Your task to perform on an android device: install app "Speedtest by Ookla" Image 0: 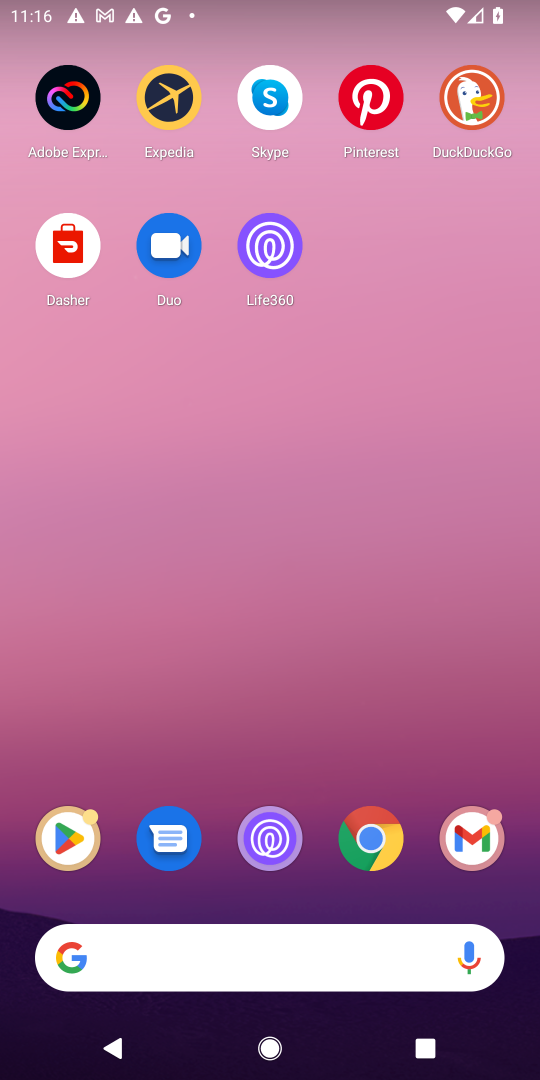
Step 0: press home button
Your task to perform on an android device: install app "Speedtest by Ookla" Image 1: 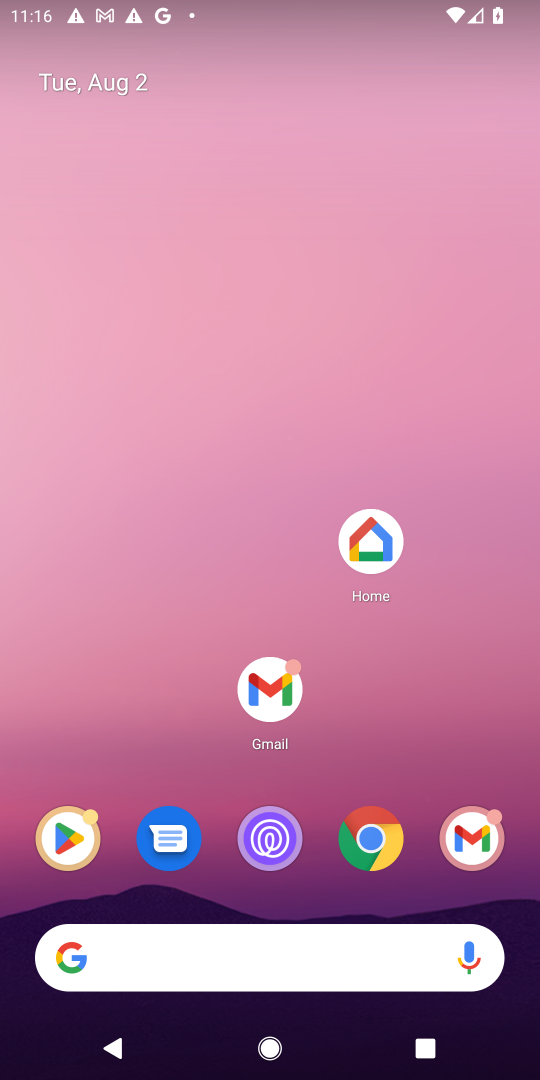
Step 1: drag from (339, 770) to (352, 111)
Your task to perform on an android device: install app "Speedtest by Ookla" Image 2: 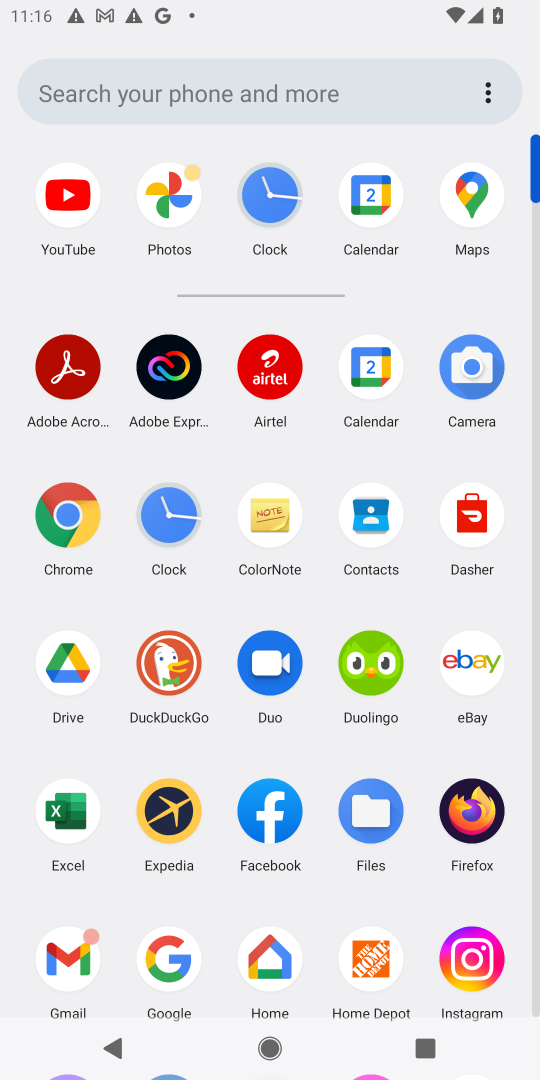
Step 2: drag from (308, 912) to (328, 598)
Your task to perform on an android device: install app "Speedtest by Ookla" Image 3: 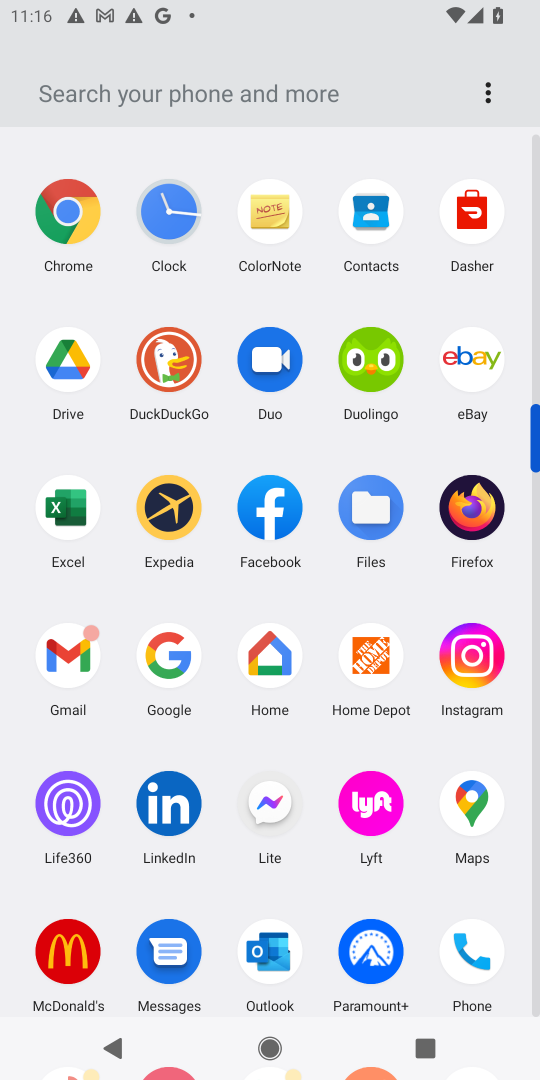
Step 3: drag from (307, 885) to (307, 649)
Your task to perform on an android device: install app "Speedtest by Ookla" Image 4: 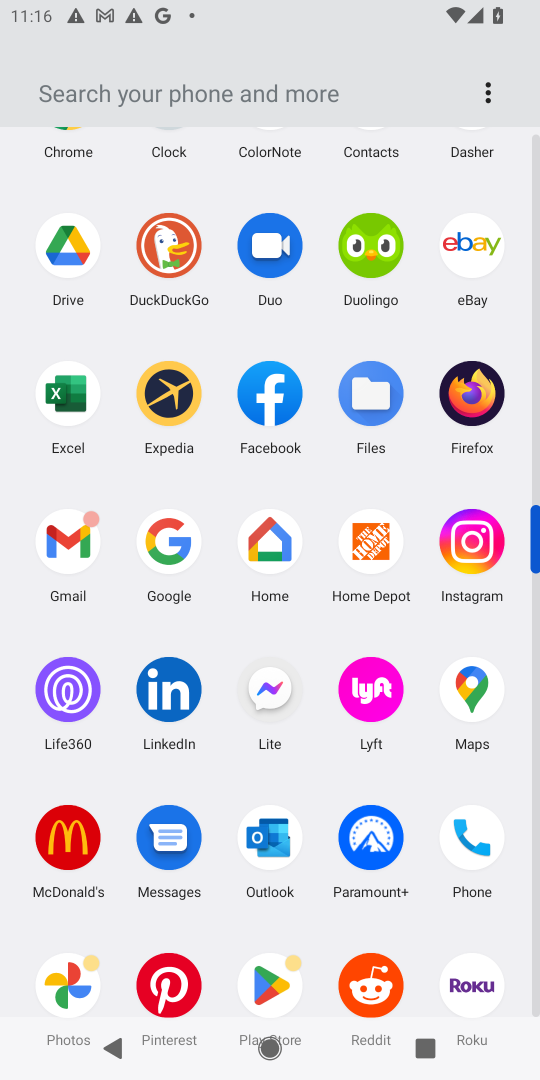
Step 4: drag from (308, 982) to (322, 670)
Your task to perform on an android device: install app "Speedtest by Ookla" Image 5: 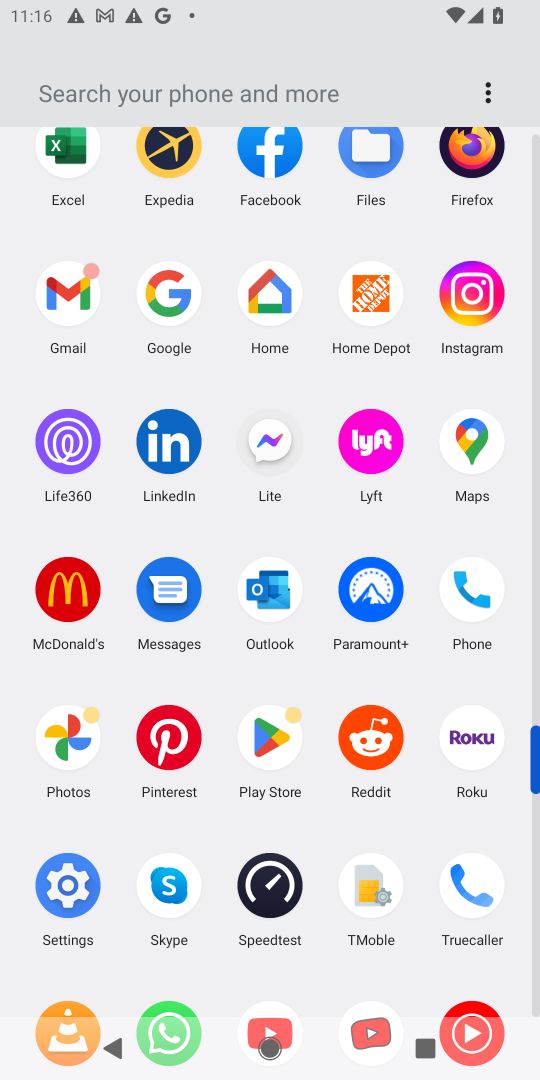
Step 5: click (271, 740)
Your task to perform on an android device: install app "Speedtest by Ookla" Image 6: 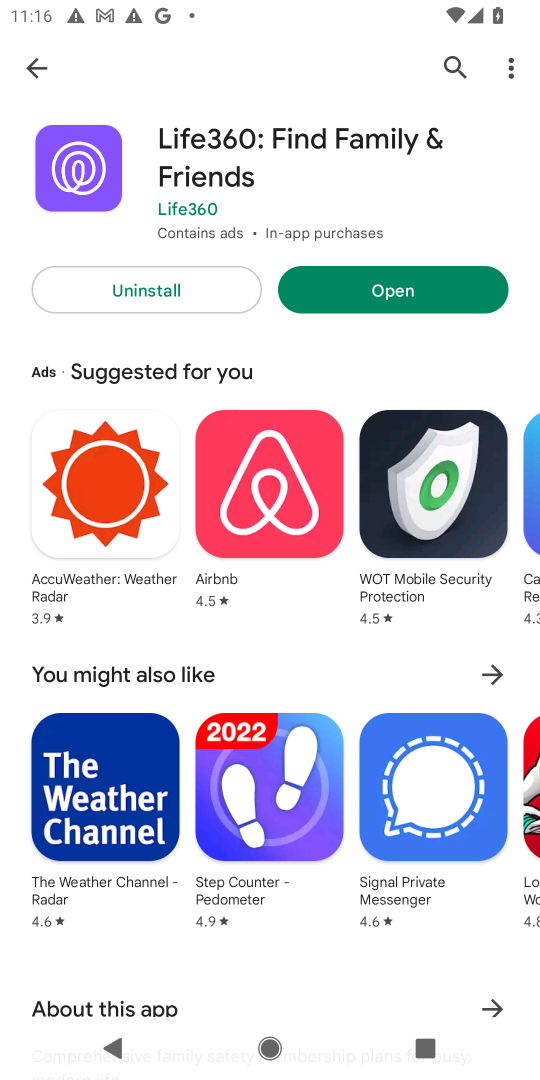
Step 6: click (447, 63)
Your task to perform on an android device: install app "Speedtest by Ookla" Image 7: 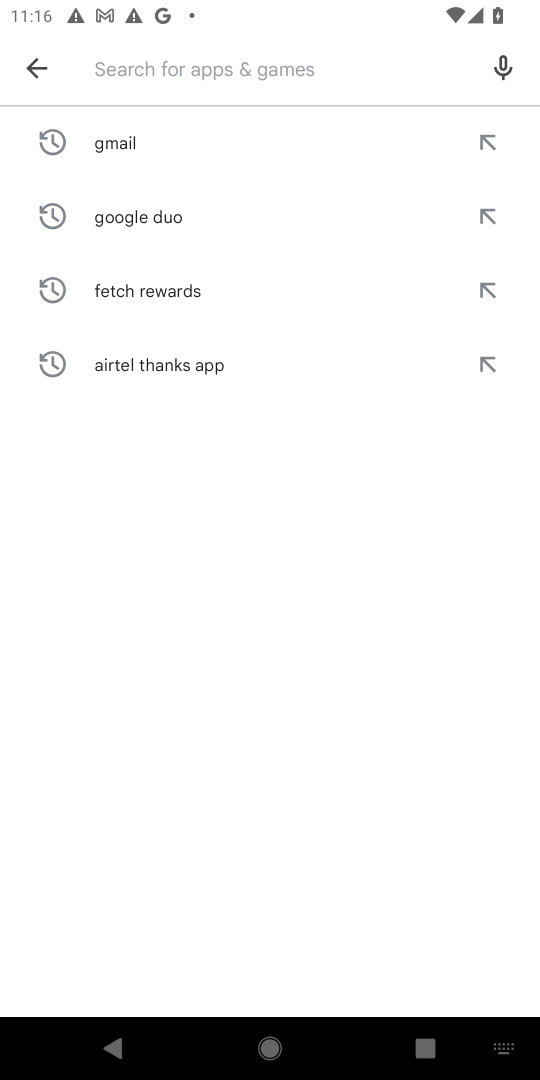
Step 7: click (364, 67)
Your task to perform on an android device: install app "Speedtest by Ookla" Image 8: 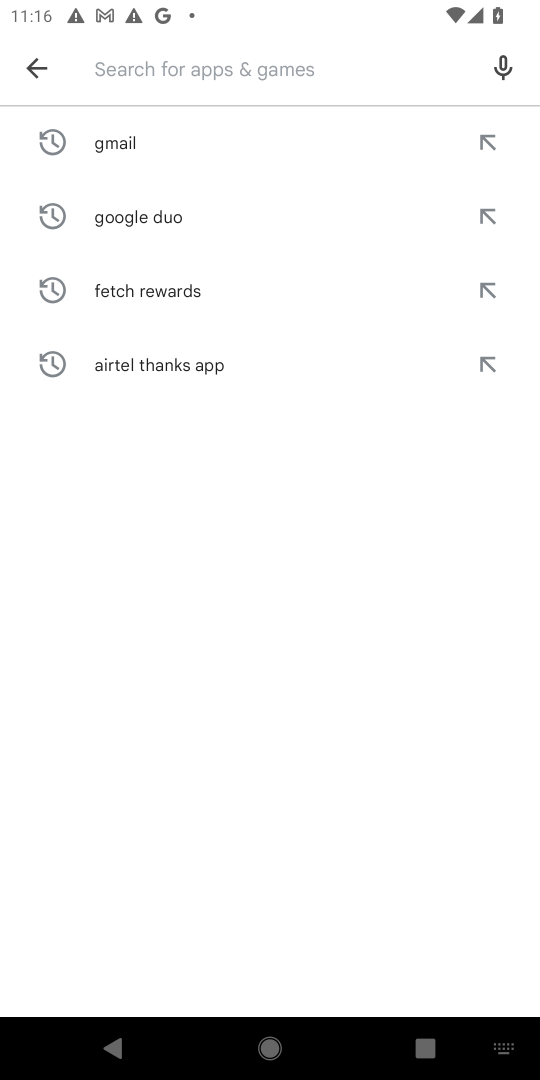
Step 8: type "speadtest by ookla"
Your task to perform on an android device: install app "Speedtest by Ookla" Image 9: 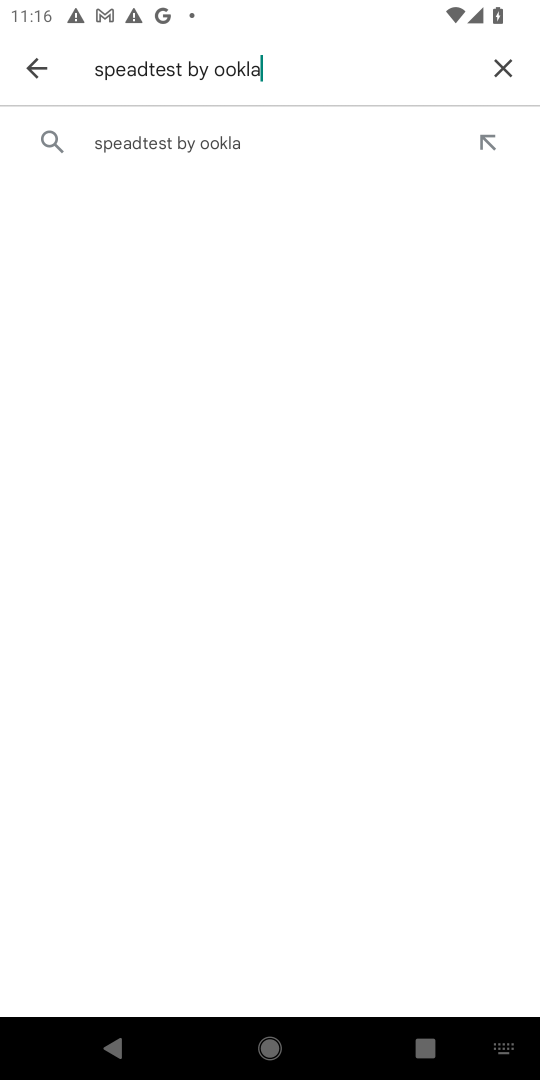
Step 9: click (272, 148)
Your task to perform on an android device: install app "Speedtest by Ookla" Image 10: 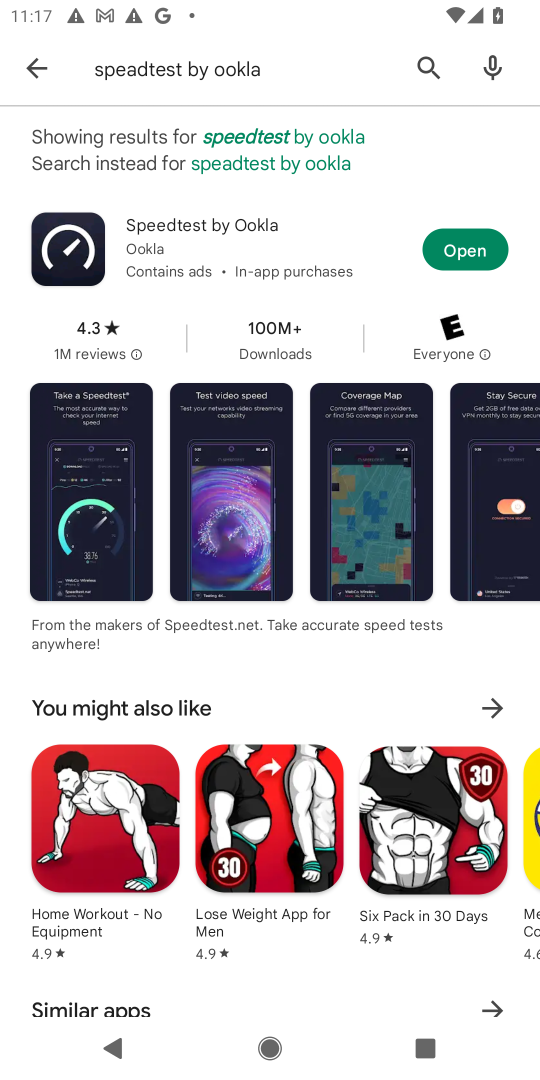
Step 10: task complete